Your task to perform on an android device: Open Google Chrome and open the bookmarks view Image 0: 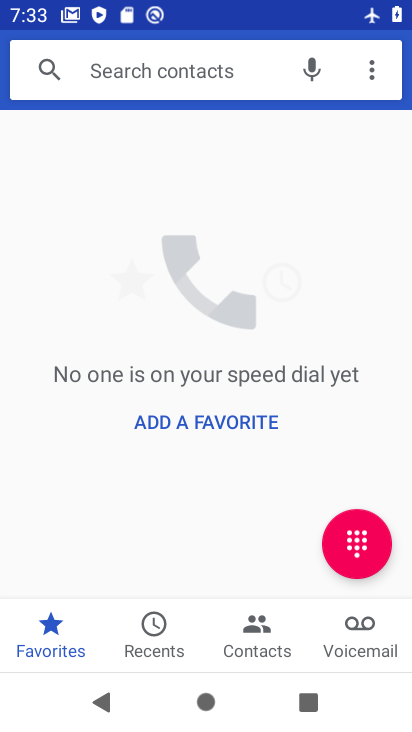
Step 0: press home button
Your task to perform on an android device: Open Google Chrome and open the bookmarks view Image 1: 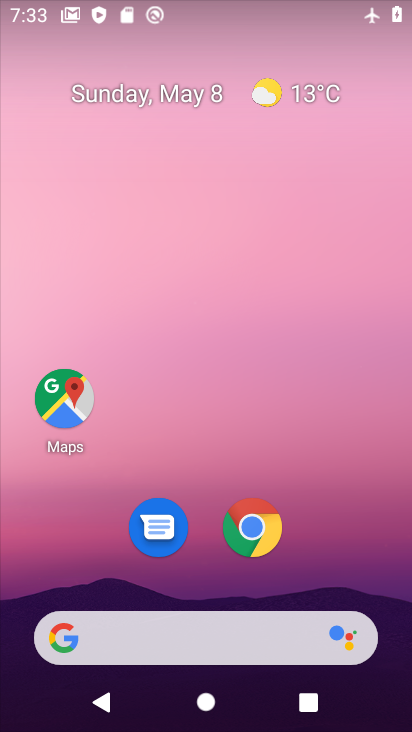
Step 1: drag from (234, 595) to (390, 56)
Your task to perform on an android device: Open Google Chrome and open the bookmarks view Image 2: 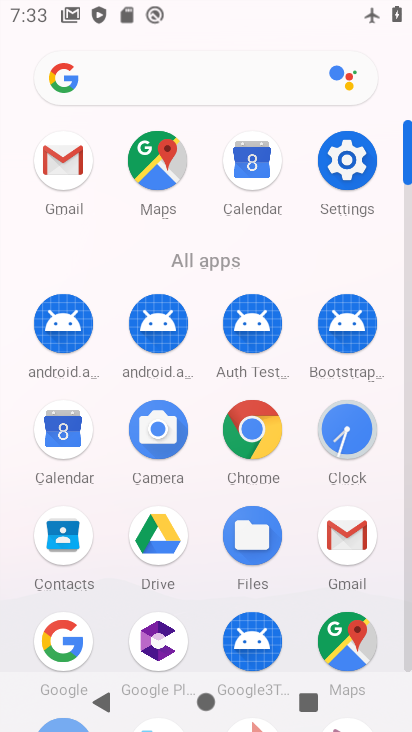
Step 2: click (252, 443)
Your task to perform on an android device: Open Google Chrome and open the bookmarks view Image 3: 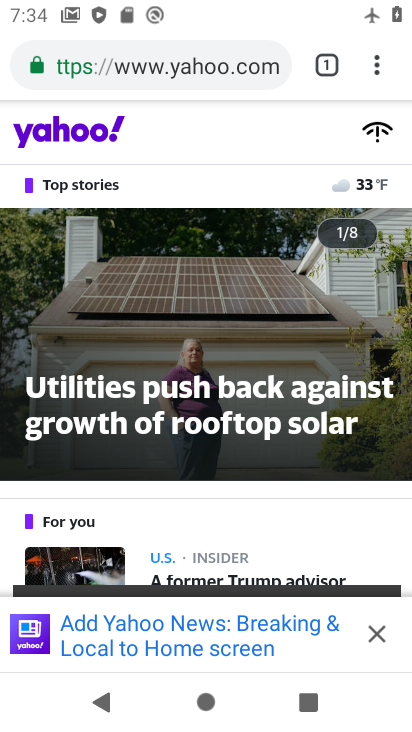
Step 3: click (363, 72)
Your task to perform on an android device: Open Google Chrome and open the bookmarks view Image 4: 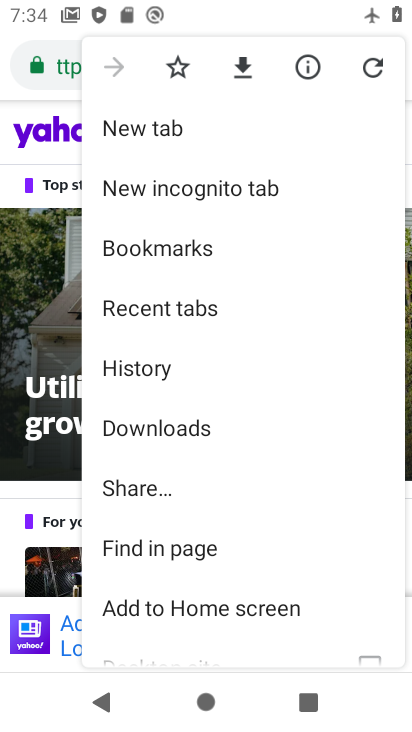
Step 4: click (132, 254)
Your task to perform on an android device: Open Google Chrome and open the bookmarks view Image 5: 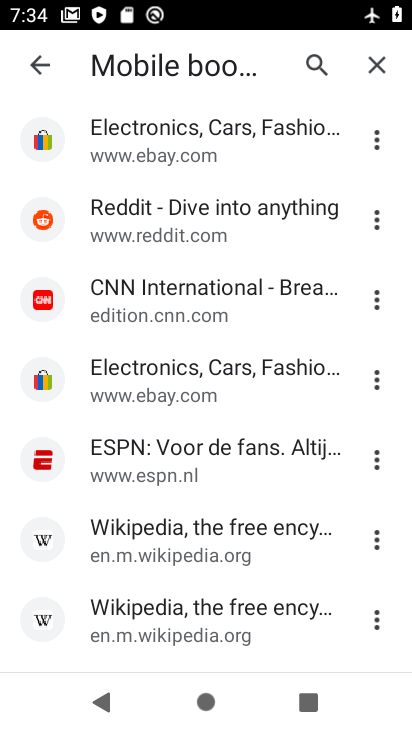
Step 5: task complete